Your task to perform on an android device: turn on data saver in the chrome app Image 0: 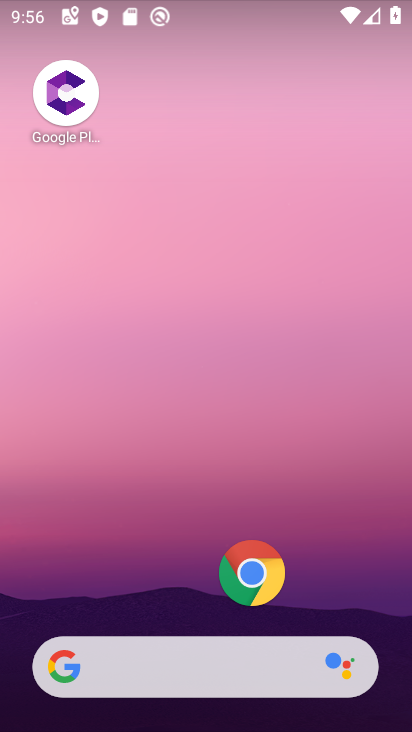
Step 0: click (252, 576)
Your task to perform on an android device: turn on data saver in the chrome app Image 1: 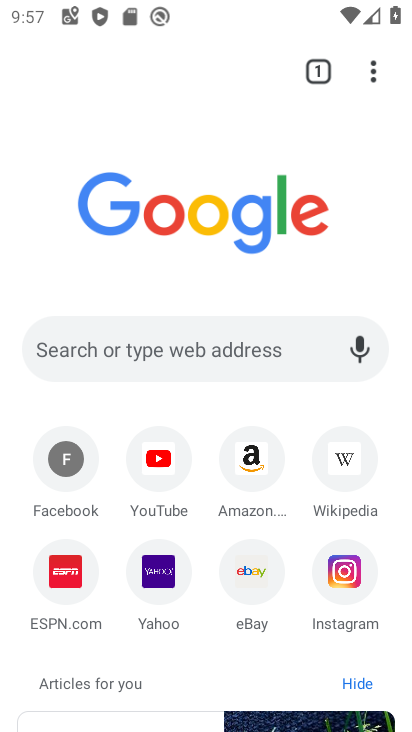
Step 1: click (385, 72)
Your task to perform on an android device: turn on data saver in the chrome app Image 2: 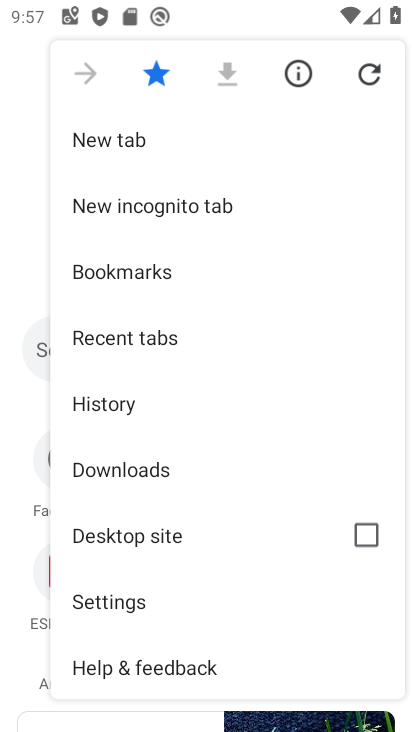
Step 2: click (180, 586)
Your task to perform on an android device: turn on data saver in the chrome app Image 3: 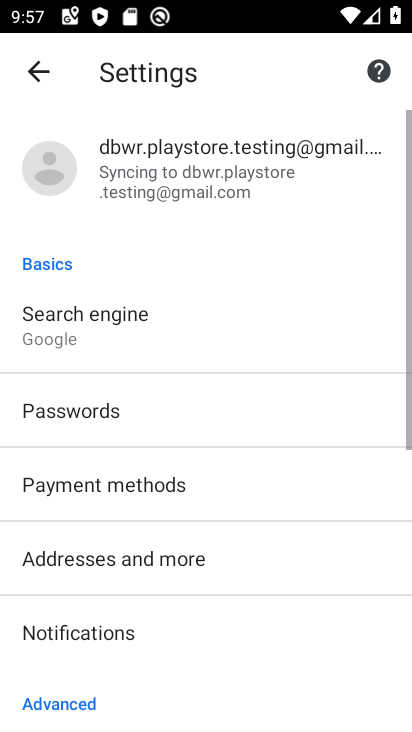
Step 3: drag from (180, 586) to (197, 227)
Your task to perform on an android device: turn on data saver in the chrome app Image 4: 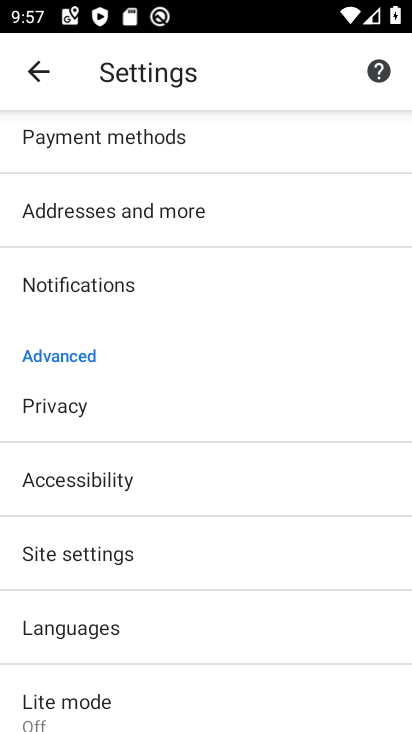
Step 4: click (116, 683)
Your task to perform on an android device: turn on data saver in the chrome app Image 5: 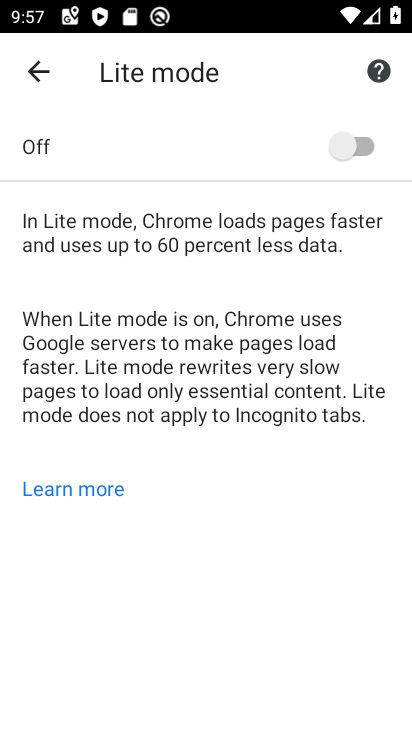
Step 5: click (362, 152)
Your task to perform on an android device: turn on data saver in the chrome app Image 6: 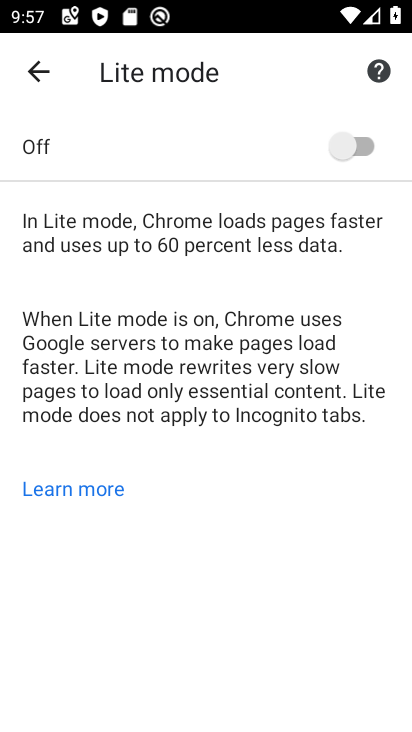
Step 6: click (362, 152)
Your task to perform on an android device: turn on data saver in the chrome app Image 7: 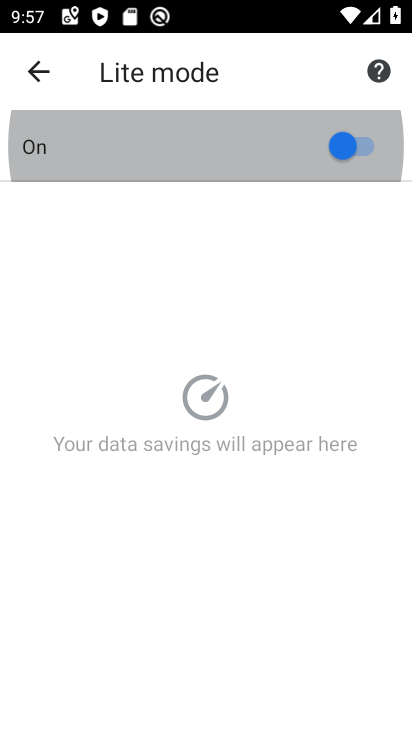
Step 7: click (362, 152)
Your task to perform on an android device: turn on data saver in the chrome app Image 8: 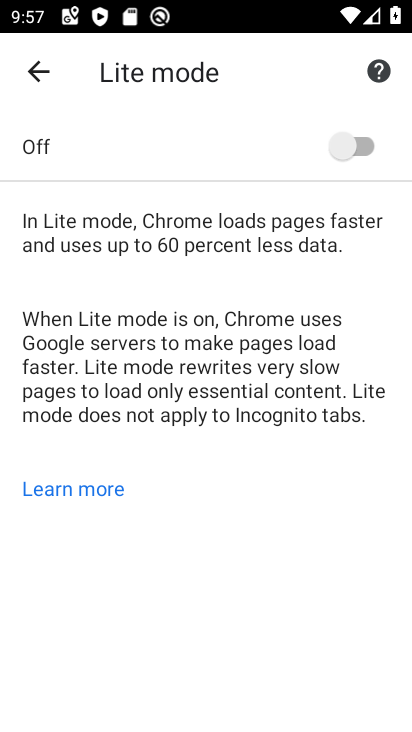
Step 8: click (362, 152)
Your task to perform on an android device: turn on data saver in the chrome app Image 9: 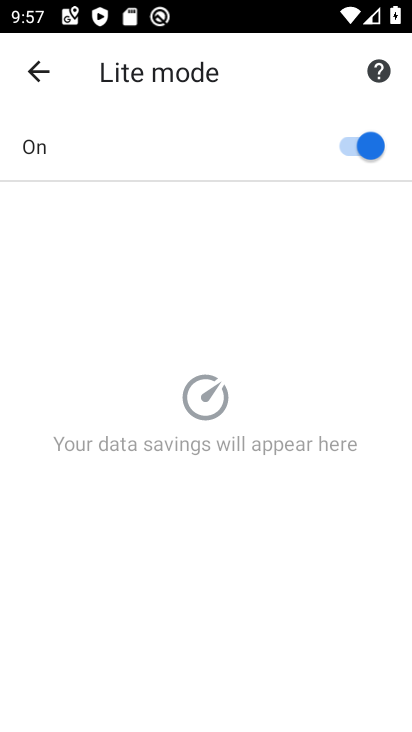
Step 9: task complete